Your task to perform on an android device: Open Maps and search for coffee Image 0: 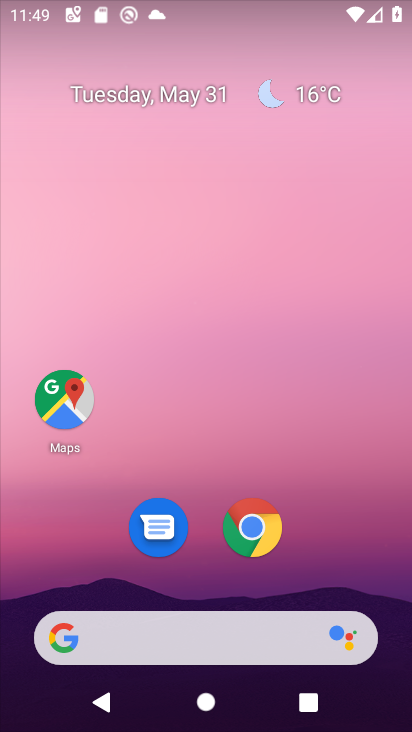
Step 0: click (62, 398)
Your task to perform on an android device: Open Maps and search for coffee Image 1: 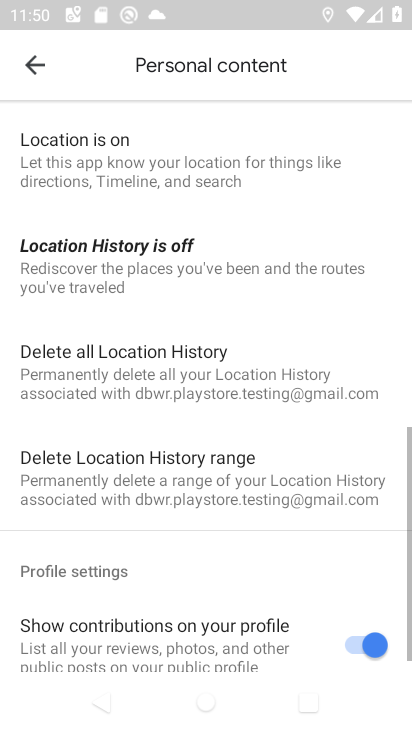
Step 1: click (29, 63)
Your task to perform on an android device: Open Maps and search for coffee Image 2: 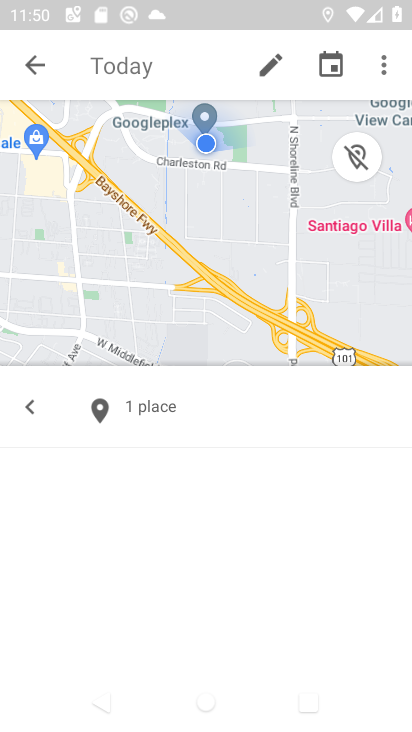
Step 2: click (32, 69)
Your task to perform on an android device: Open Maps and search for coffee Image 3: 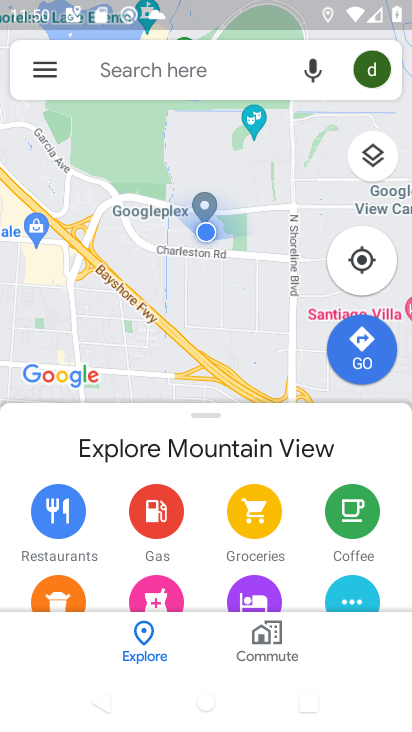
Step 3: click (104, 68)
Your task to perform on an android device: Open Maps and search for coffee Image 4: 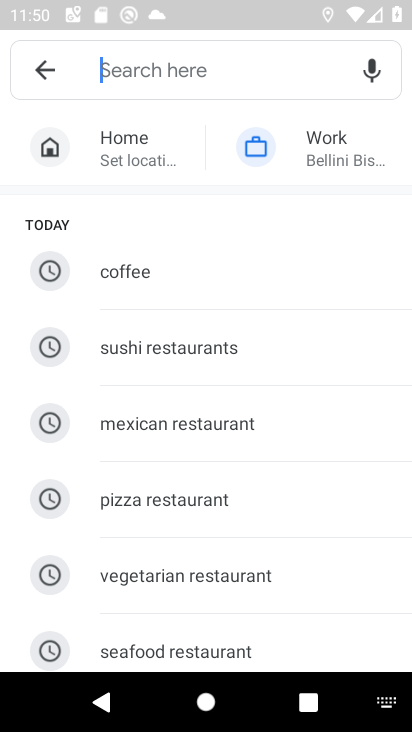
Step 4: type "coffee"
Your task to perform on an android device: Open Maps and search for coffee Image 5: 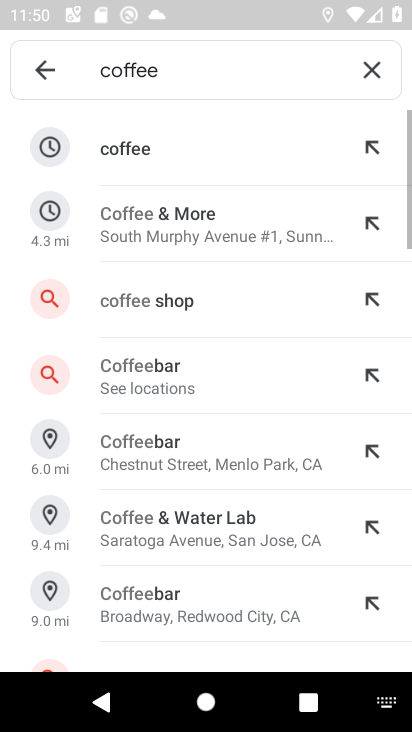
Step 5: click (108, 150)
Your task to perform on an android device: Open Maps and search for coffee Image 6: 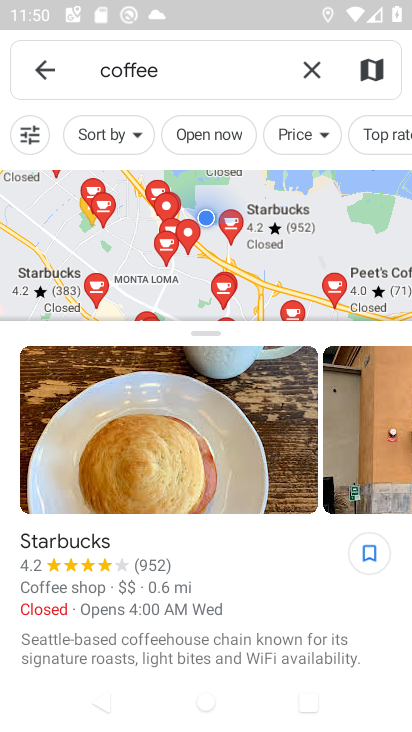
Step 6: task complete